Your task to perform on an android device: turn off javascript in the chrome app Image 0: 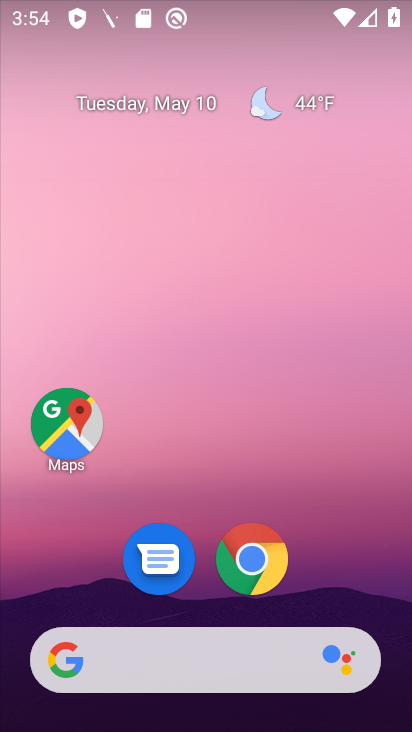
Step 0: click (264, 563)
Your task to perform on an android device: turn off javascript in the chrome app Image 1: 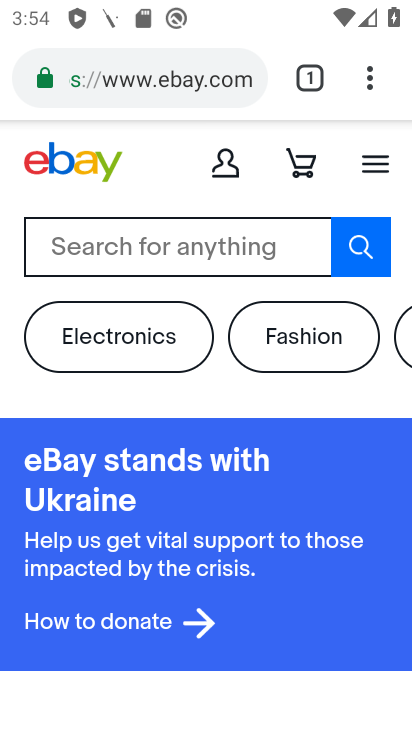
Step 1: drag from (383, 84) to (164, 620)
Your task to perform on an android device: turn off javascript in the chrome app Image 2: 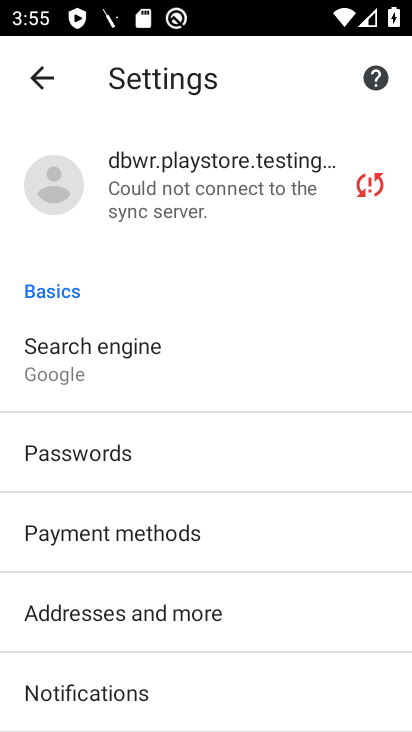
Step 2: drag from (162, 704) to (257, 275)
Your task to perform on an android device: turn off javascript in the chrome app Image 3: 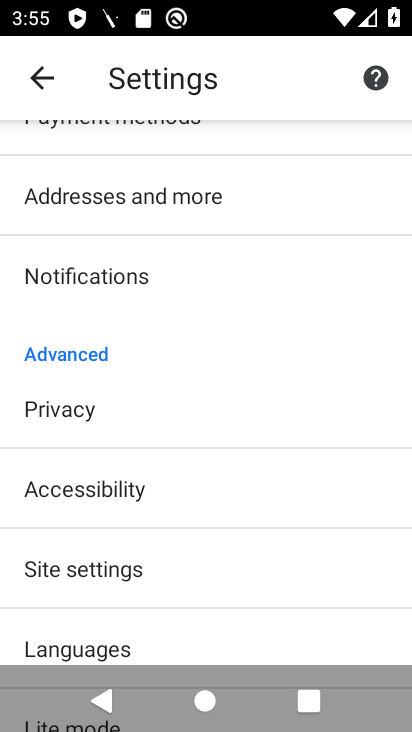
Step 3: click (165, 578)
Your task to perform on an android device: turn off javascript in the chrome app Image 4: 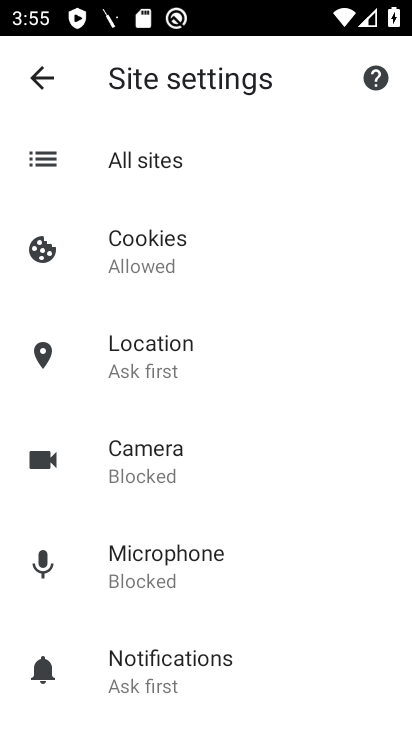
Step 4: drag from (154, 572) to (271, 226)
Your task to perform on an android device: turn off javascript in the chrome app Image 5: 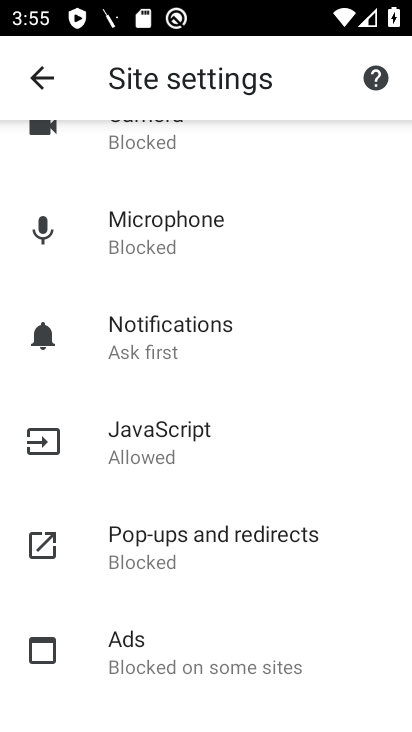
Step 5: click (216, 449)
Your task to perform on an android device: turn off javascript in the chrome app Image 6: 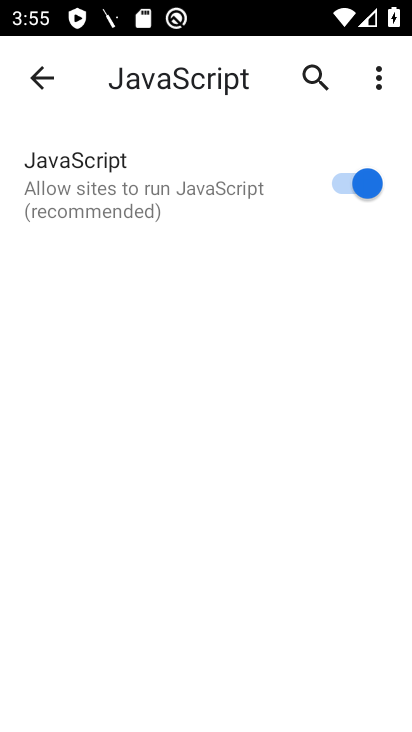
Step 6: click (348, 182)
Your task to perform on an android device: turn off javascript in the chrome app Image 7: 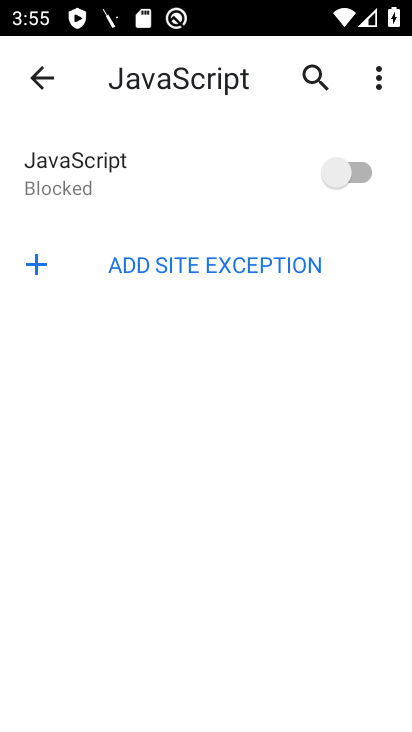
Step 7: task complete